Your task to perform on an android device: Open calendar and show me the second week of next month Image 0: 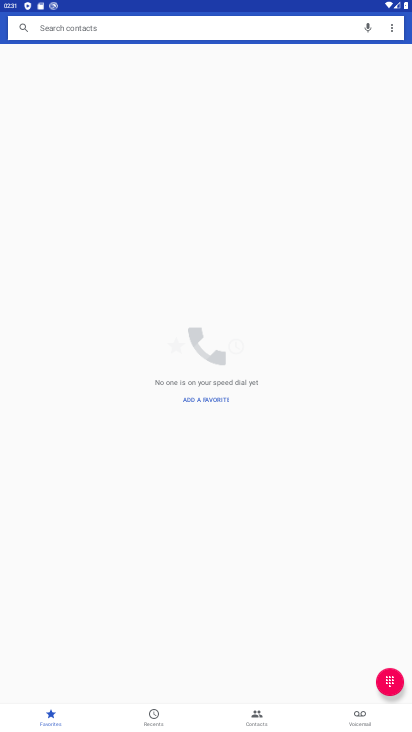
Step 0: press home button
Your task to perform on an android device: Open calendar and show me the second week of next month Image 1: 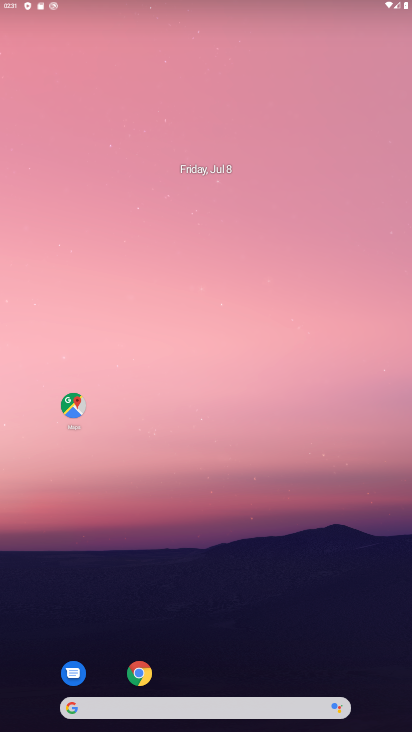
Step 1: drag from (299, 658) to (329, 123)
Your task to perform on an android device: Open calendar and show me the second week of next month Image 2: 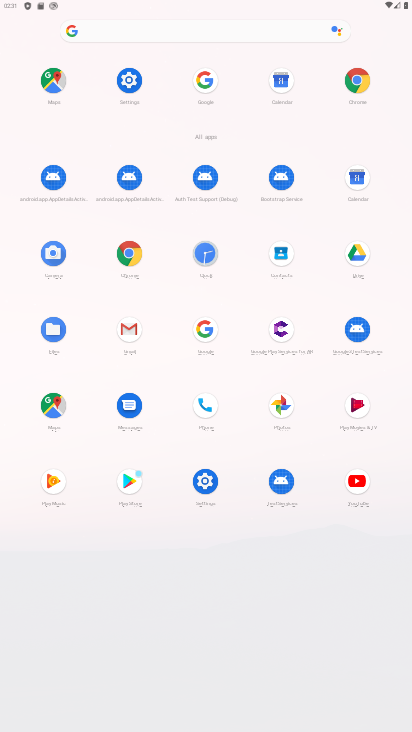
Step 2: click (353, 173)
Your task to perform on an android device: Open calendar and show me the second week of next month Image 3: 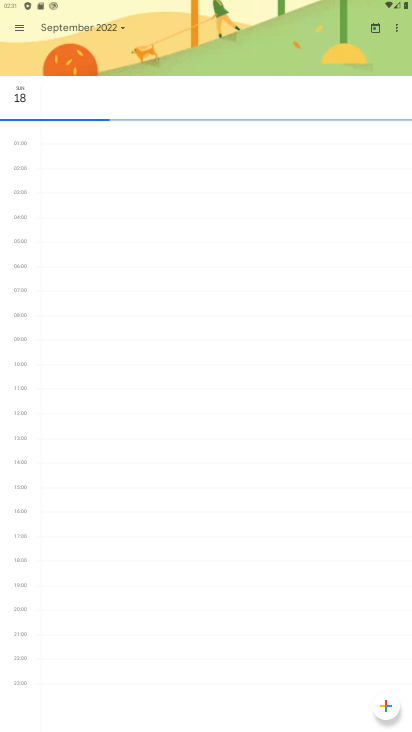
Step 3: click (113, 22)
Your task to perform on an android device: Open calendar and show me the second week of next month Image 4: 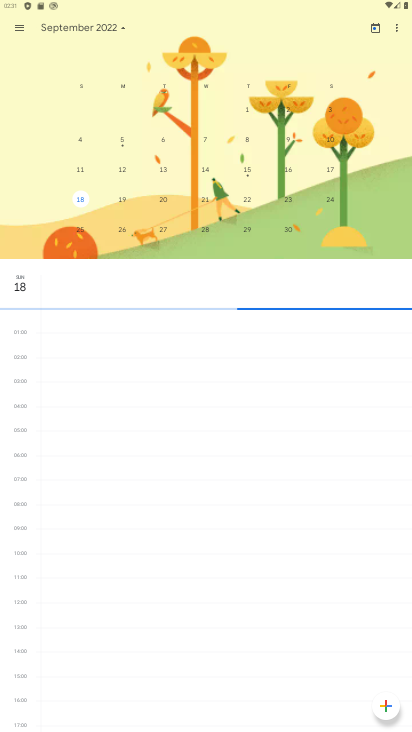
Step 4: drag from (297, 139) to (35, 111)
Your task to perform on an android device: Open calendar and show me the second week of next month Image 5: 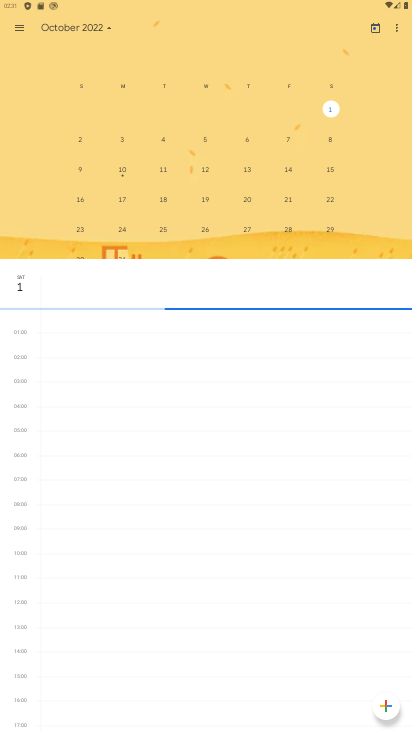
Step 5: drag from (103, 128) to (409, 167)
Your task to perform on an android device: Open calendar and show me the second week of next month Image 6: 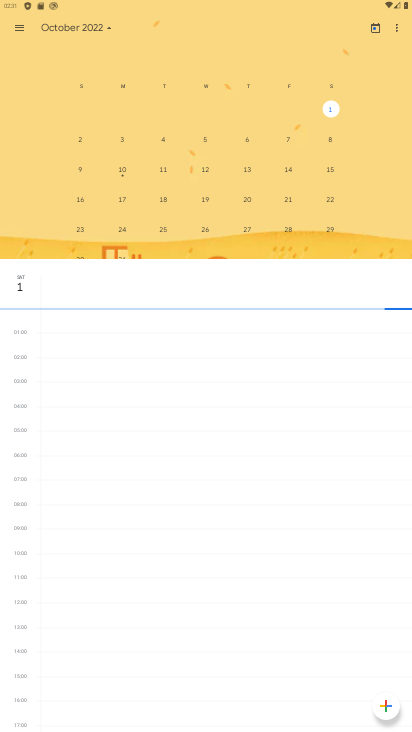
Step 6: drag from (56, 177) to (398, 188)
Your task to perform on an android device: Open calendar and show me the second week of next month Image 7: 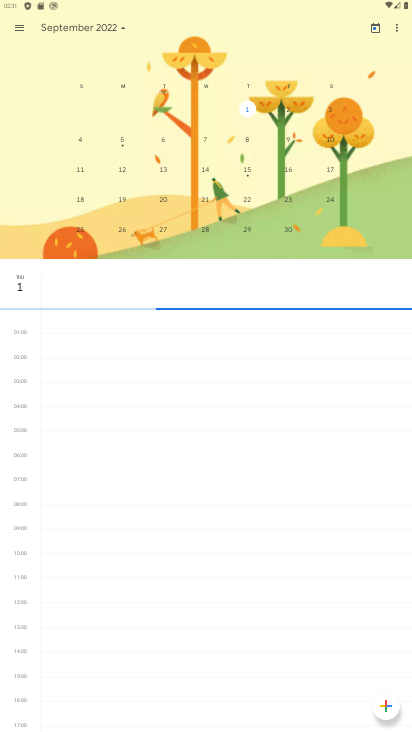
Step 7: drag from (12, 140) to (395, 14)
Your task to perform on an android device: Open calendar and show me the second week of next month Image 8: 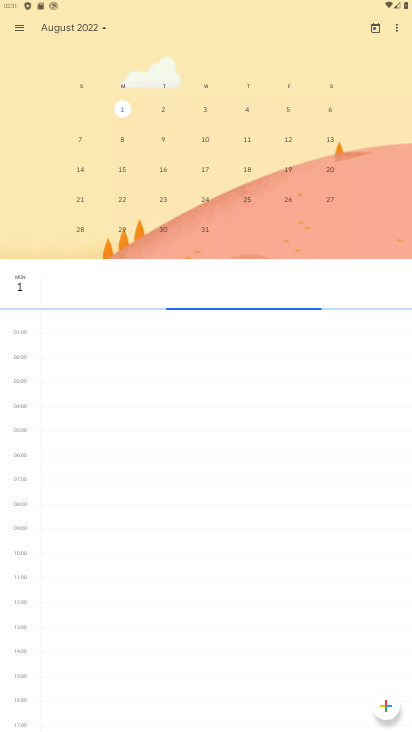
Step 8: click (121, 143)
Your task to perform on an android device: Open calendar and show me the second week of next month Image 9: 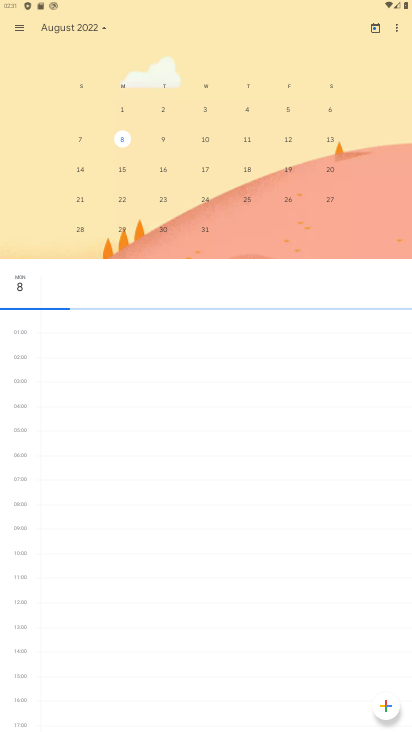
Step 9: task complete